Your task to perform on an android device: refresh tabs in the chrome app Image 0: 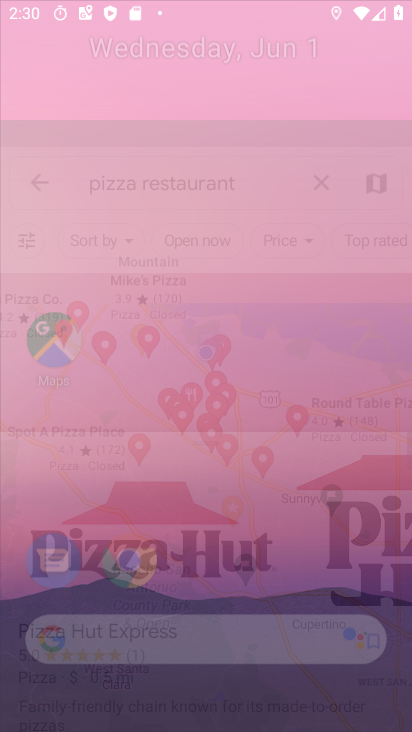
Step 0: drag from (233, 373) to (162, 138)
Your task to perform on an android device: refresh tabs in the chrome app Image 1: 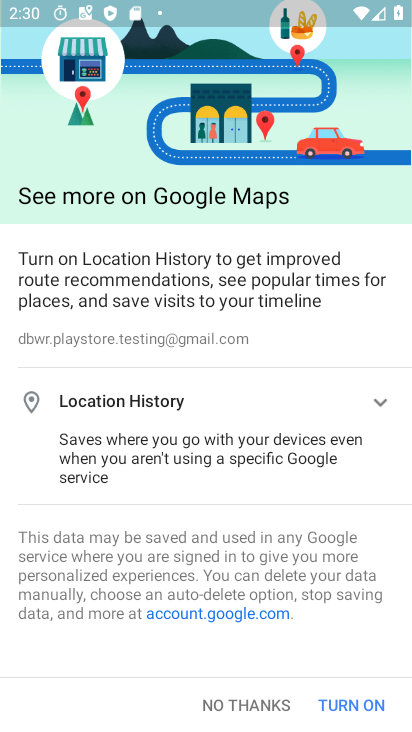
Step 1: press back button
Your task to perform on an android device: refresh tabs in the chrome app Image 2: 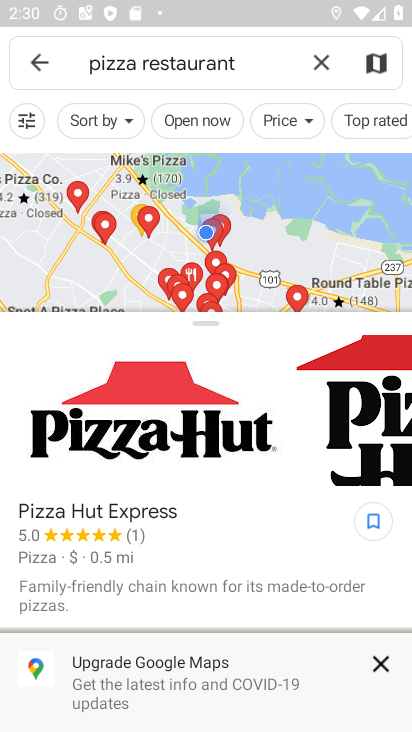
Step 2: press back button
Your task to perform on an android device: refresh tabs in the chrome app Image 3: 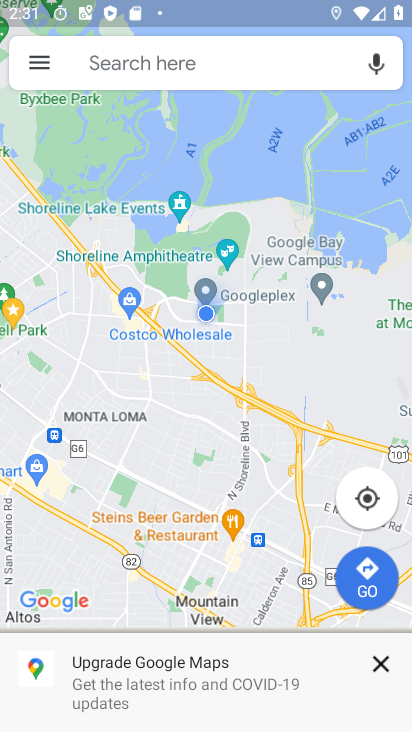
Step 3: press home button
Your task to perform on an android device: refresh tabs in the chrome app Image 4: 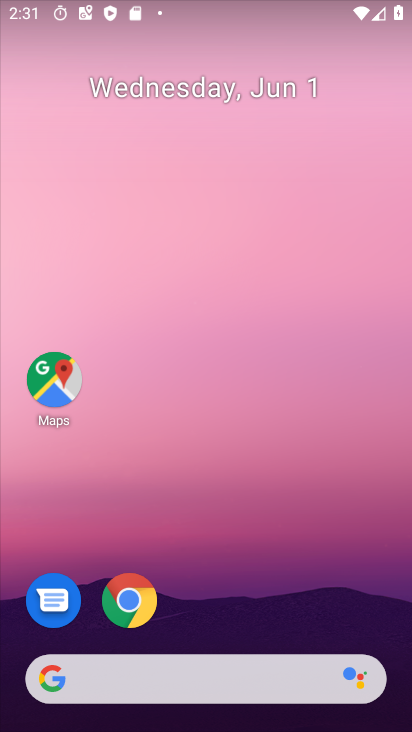
Step 4: drag from (225, 643) to (152, 304)
Your task to perform on an android device: refresh tabs in the chrome app Image 5: 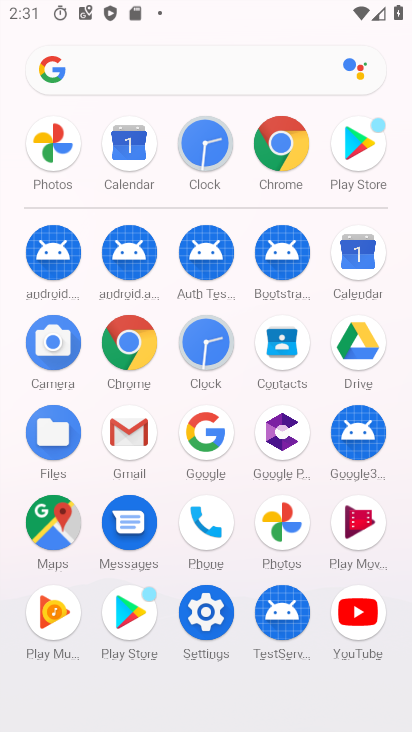
Step 5: click (128, 338)
Your task to perform on an android device: refresh tabs in the chrome app Image 6: 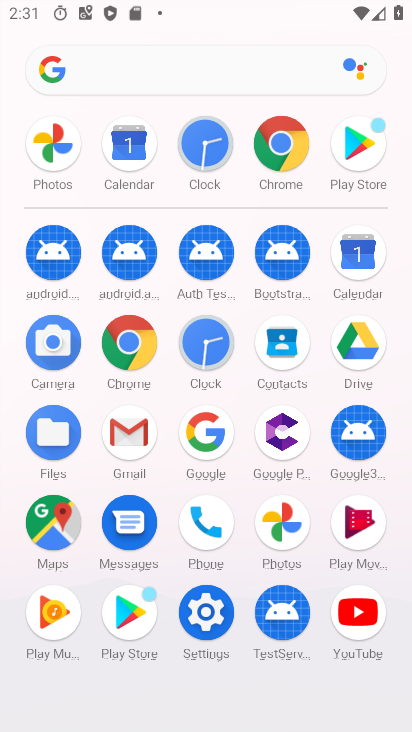
Step 6: click (133, 336)
Your task to perform on an android device: refresh tabs in the chrome app Image 7: 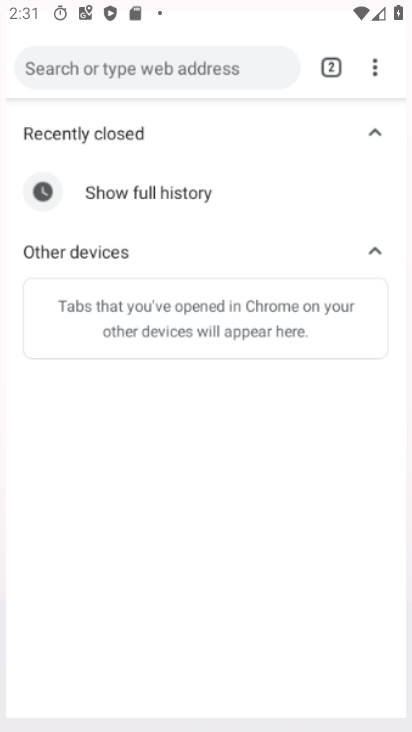
Step 7: click (133, 335)
Your task to perform on an android device: refresh tabs in the chrome app Image 8: 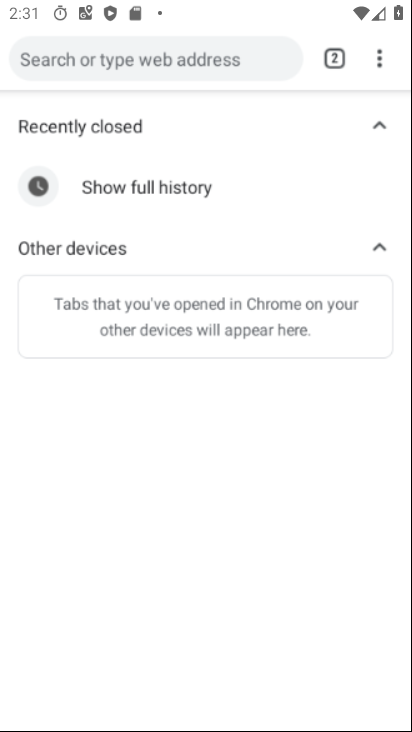
Step 8: click (133, 335)
Your task to perform on an android device: refresh tabs in the chrome app Image 9: 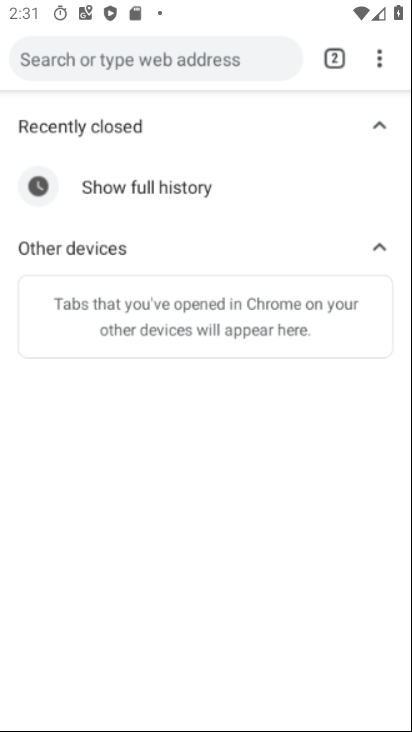
Step 9: click (133, 335)
Your task to perform on an android device: refresh tabs in the chrome app Image 10: 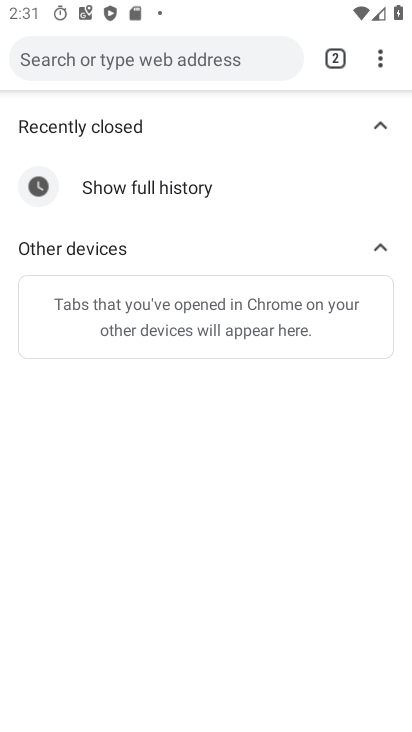
Step 10: click (383, 62)
Your task to perform on an android device: refresh tabs in the chrome app Image 11: 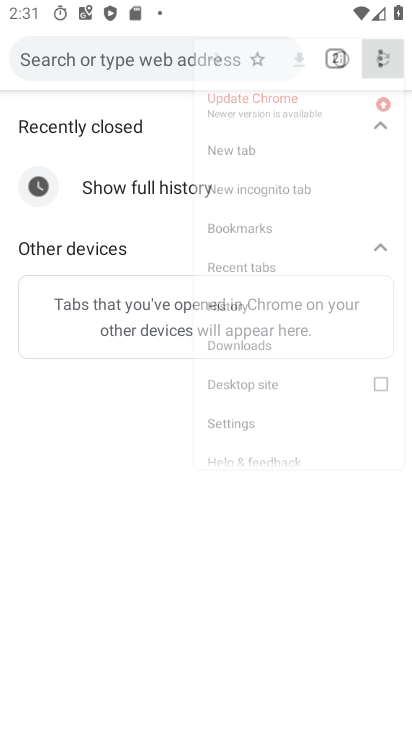
Step 11: click (371, 64)
Your task to perform on an android device: refresh tabs in the chrome app Image 12: 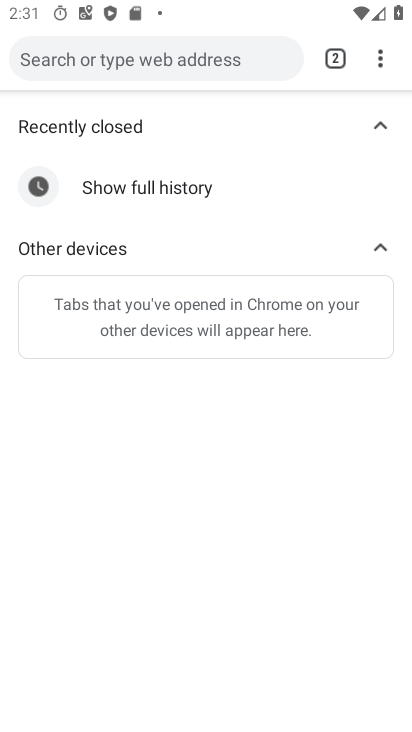
Step 12: click (370, 64)
Your task to perform on an android device: refresh tabs in the chrome app Image 13: 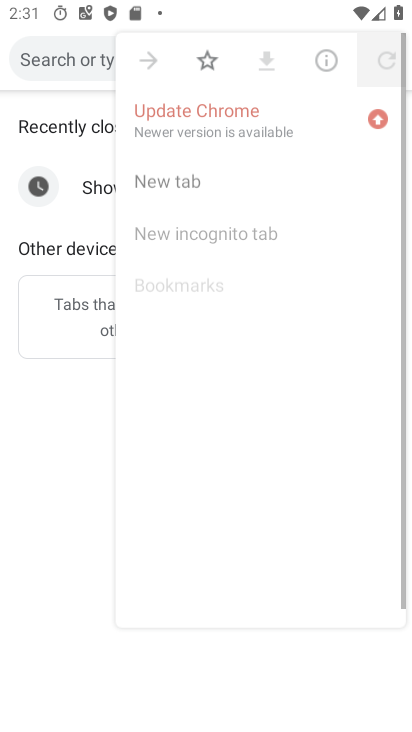
Step 13: click (369, 64)
Your task to perform on an android device: refresh tabs in the chrome app Image 14: 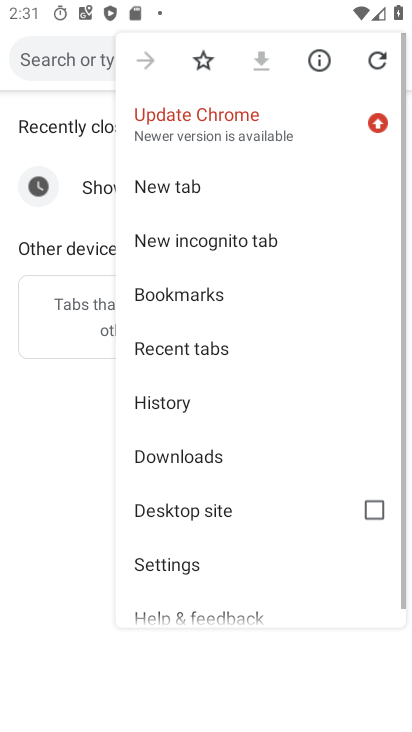
Step 14: task complete